Your task to perform on an android device: Open calendar and show me the third week of next month Image 0: 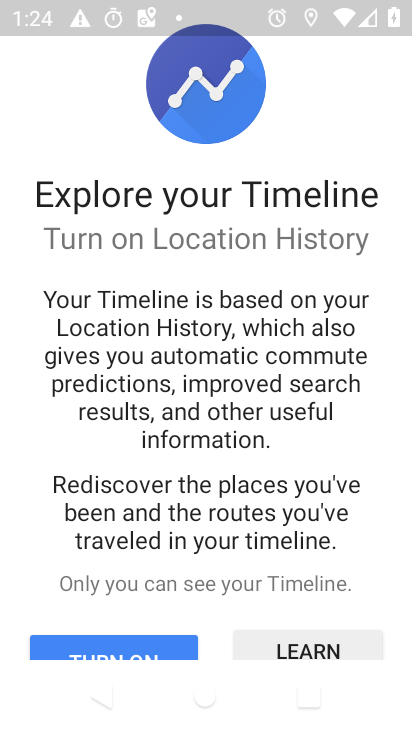
Step 0: press back button
Your task to perform on an android device: Open calendar and show me the third week of next month Image 1: 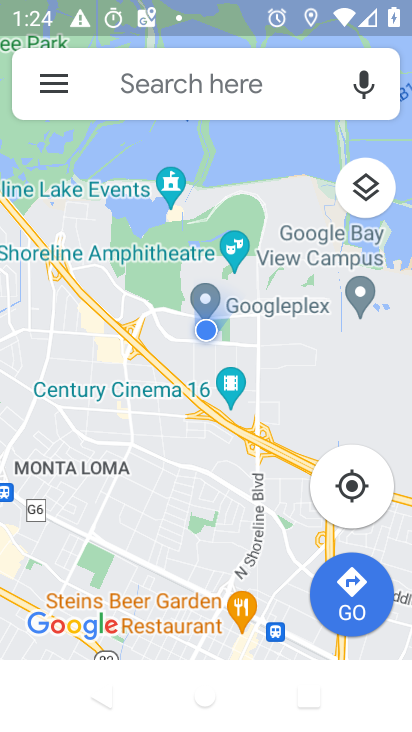
Step 1: press back button
Your task to perform on an android device: Open calendar and show me the third week of next month Image 2: 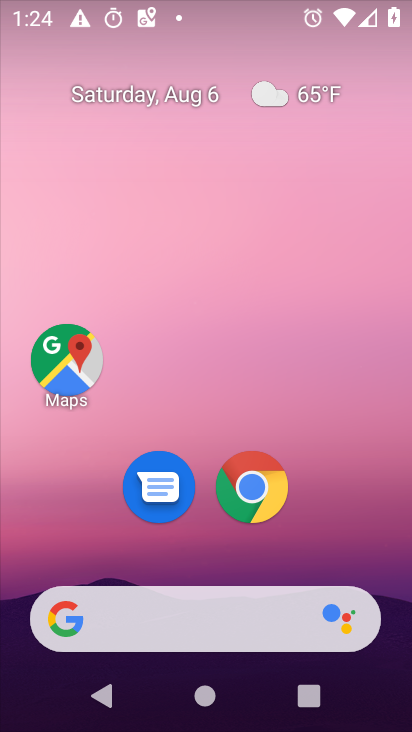
Step 2: press back button
Your task to perform on an android device: Open calendar and show me the third week of next month Image 3: 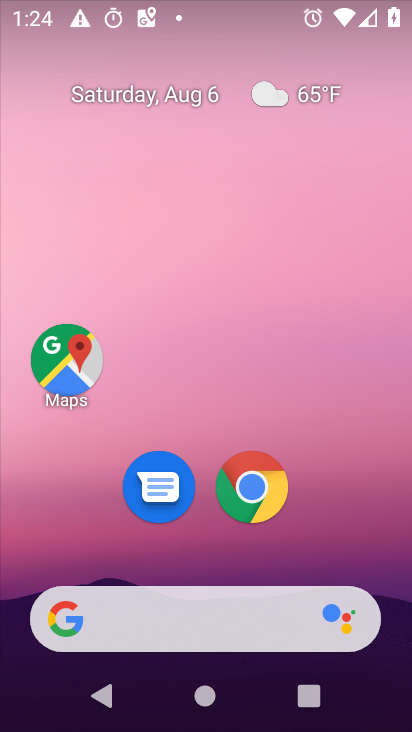
Step 3: drag from (225, 567) to (259, 66)
Your task to perform on an android device: Open calendar and show me the third week of next month Image 4: 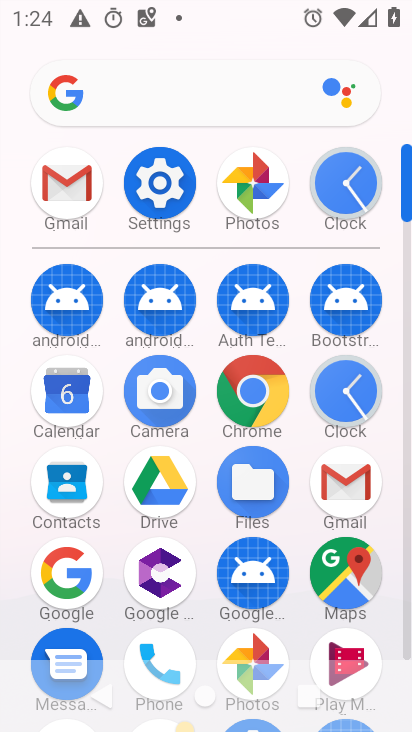
Step 4: click (67, 402)
Your task to perform on an android device: Open calendar and show me the third week of next month Image 5: 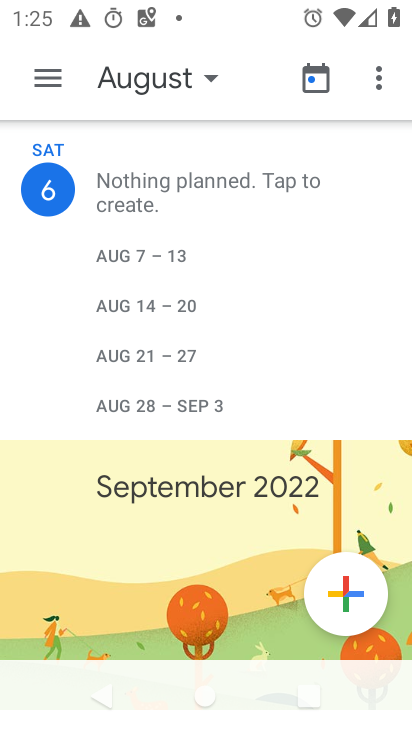
Step 5: click (194, 80)
Your task to perform on an android device: Open calendar and show me the third week of next month Image 6: 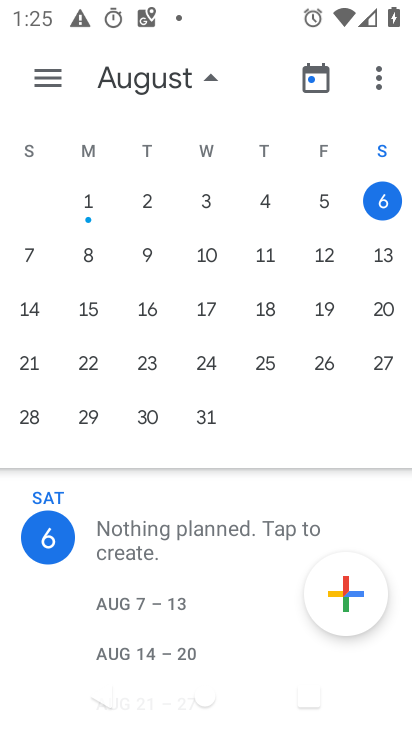
Step 6: drag from (380, 254) to (42, 259)
Your task to perform on an android device: Open calendar and show me the third week of next month Image 7: 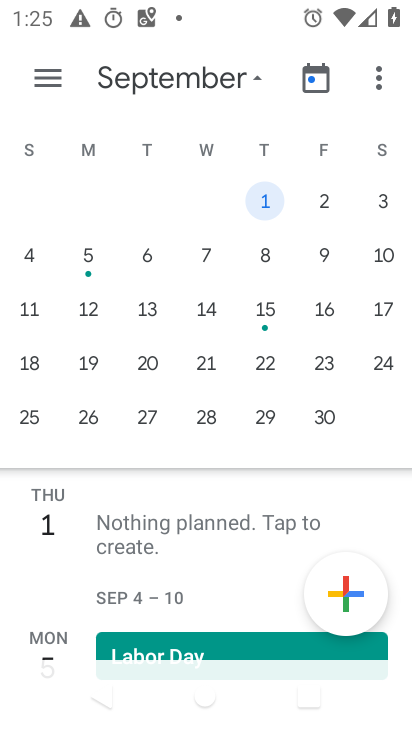
Step 7: click (87, 306)
Your task to perform on an android device: Open calendar and show me the third week of next month Image 8: 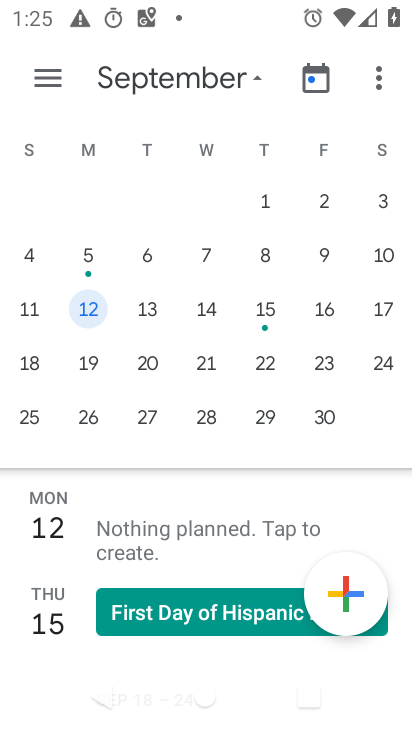
Step 8: task complete